Your task to perform on an android device: turn on sleep mode Image 0: 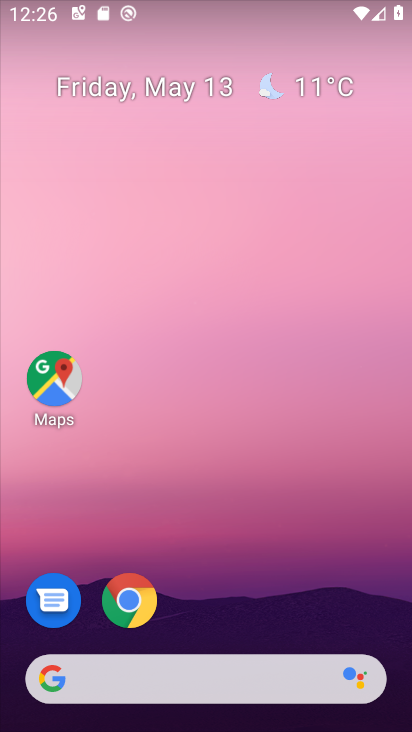
Step 0: click (237, 197)
Your task to perform on an android device: turn on sleep mode Image 1: 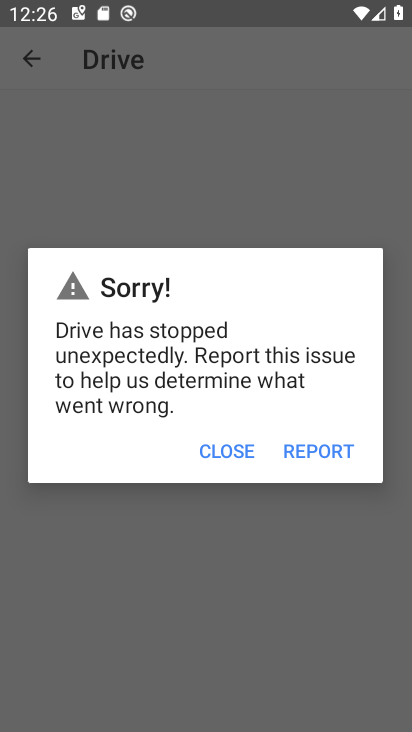
Step 1: press home button
Your task to perform on an android device: turn on sleep mode Image 2: 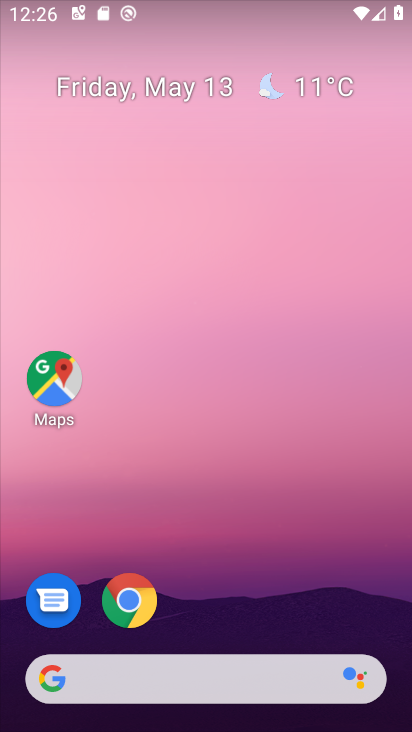
Step 2: drag from (190, 358) to (232, 82)
Your task to perform on an android device: turn on sleep mode Image 3: 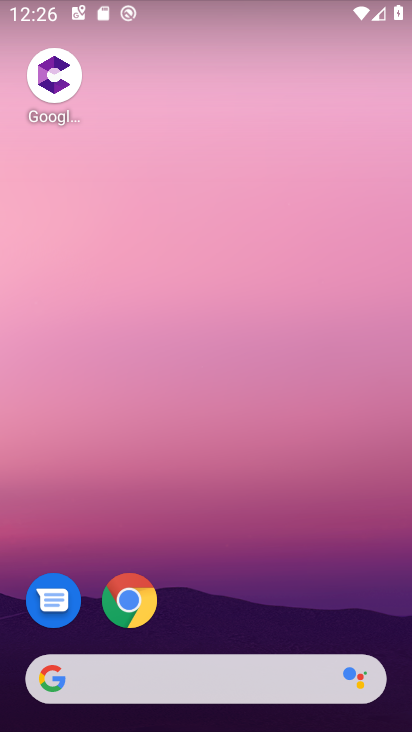
Step 3: drag from (207, 636) to (240, 46)
Your task to perform on an android device: turn on sleep mode Image 4: 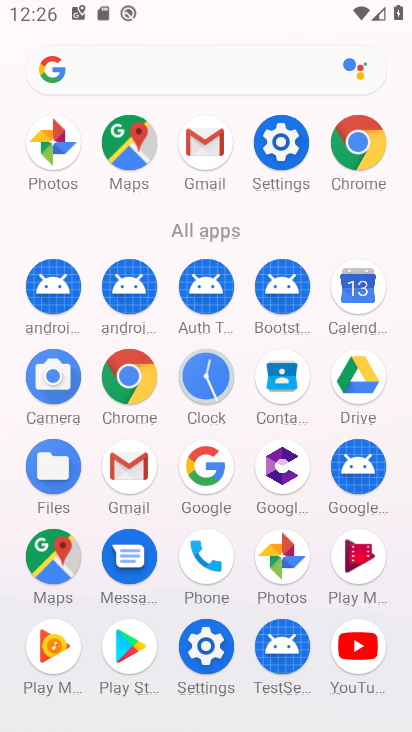
Step 4: click (284, 156)
Your task to perform on an android device: turn on sleep mode Image 5: 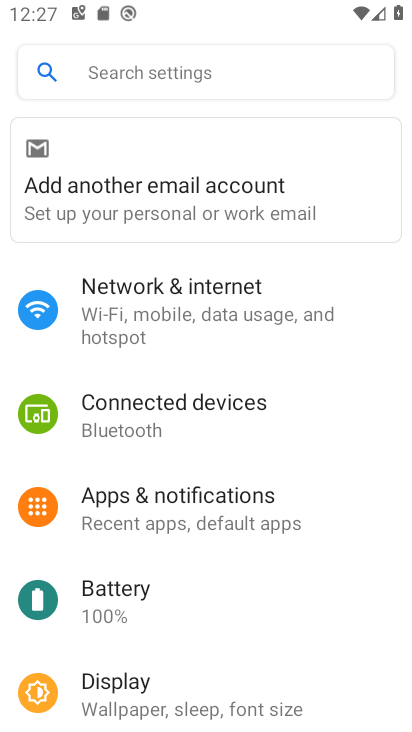
Step 5: click (179, 706)
Your task to perform on an android device: turn on sleep mode Image 6: 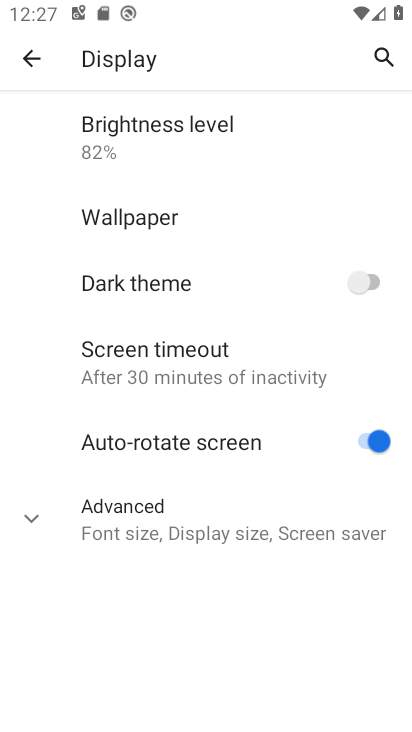
Step 6: click (203, 370)
Your task to perform on an android device: turn on sleep mode Image 7: 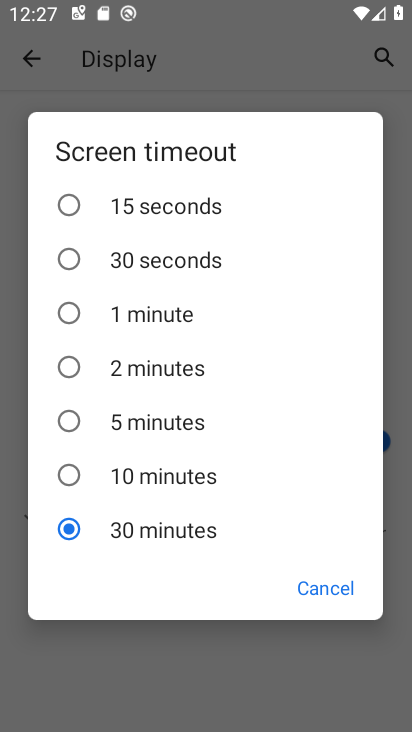
Step 7: click (75, 202)
Your task to perform on an android device: turn on sleep mode Image 8: 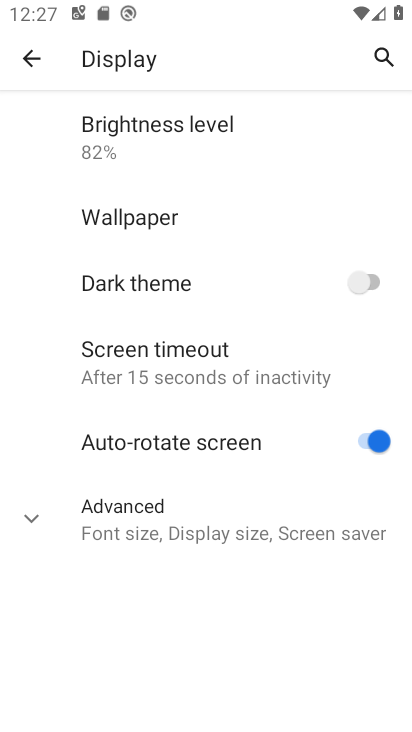
Step 8: task complete